Your task to perform on an android device: Go to notification settings Image 0: 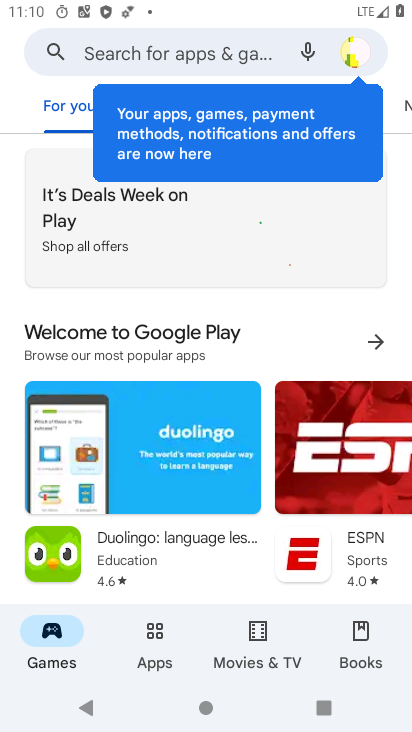
Step 0: press home button
Your task to perform on an android device: Go to notification settings Image 1: 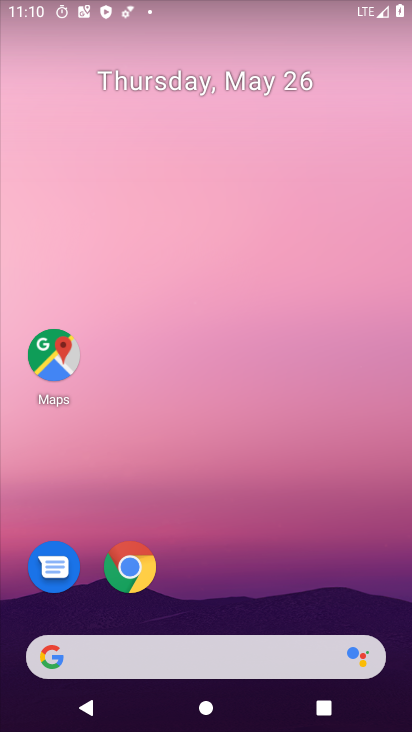
Step 1: drag from (280, 617) to (289, 23)
Your task to perform on an android device: Go to notification settings Image 2: 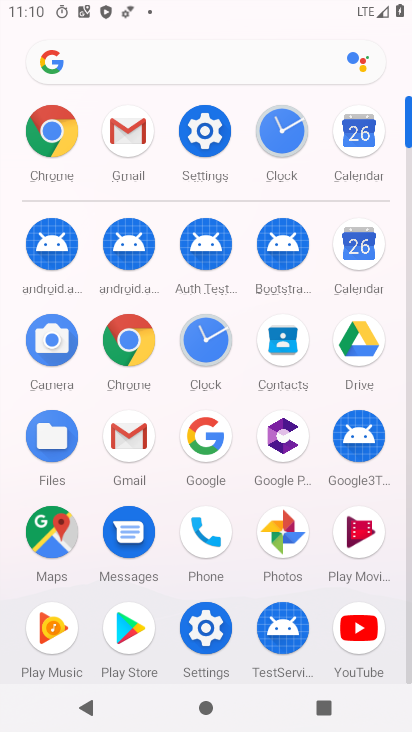
Step 2: click (220, 132)
Your task to perform on an android device: Go to notification settings Image 3: 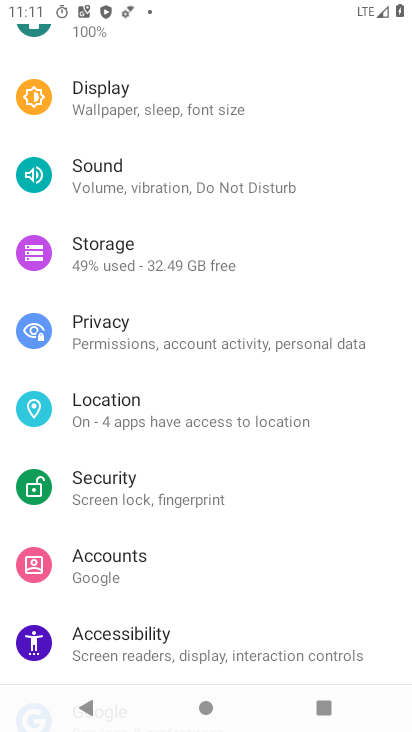
Step 3: drag from (273, 517) to (273, 140)
Your task to perform on an android device: Go to notification settings Image 4: 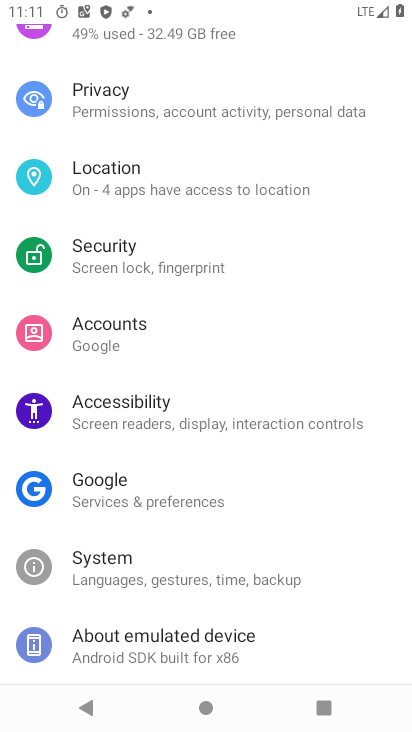
Step 4: drag from (250, 155) to (217, 696)
Your task to perform on an android device: Go to notification settings Image 5: 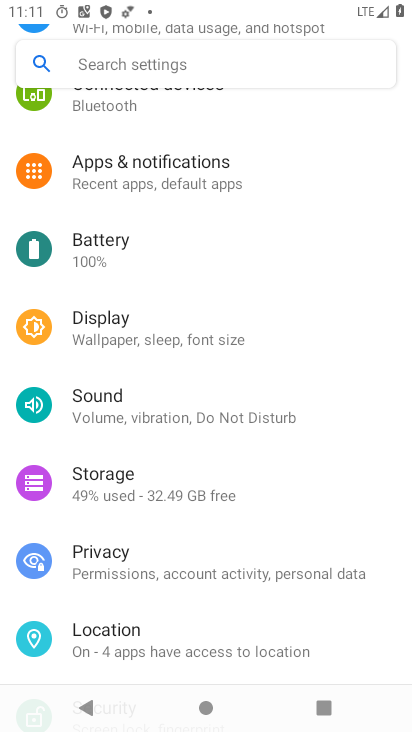
Step 5: click (206, 171)
Your task to perform on an android device: Go to notification settings Image 6: 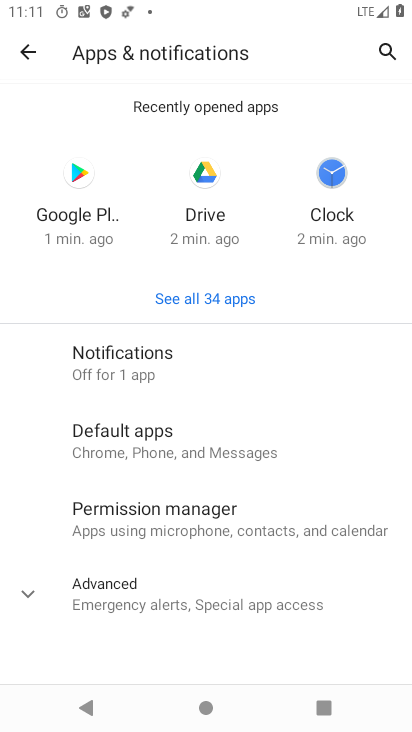
Step 6: task complete